Your task to perform on an android device: change notification settings in the gmail app Image 0: 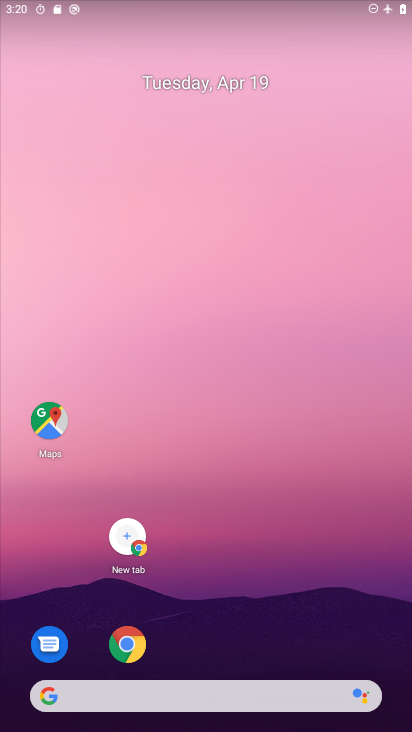
Step 0: drag from (243, 506) to (136, 95)
Your task to perform on an android device: change notification settings in the gmail app Image 1: 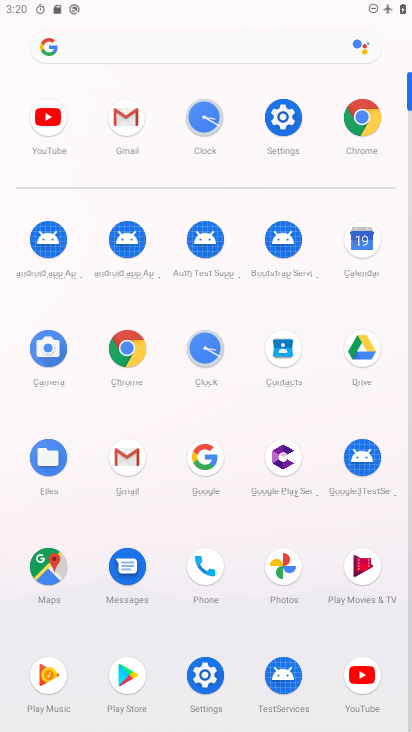
Step 1: click (138, 458)
Your task to perform on an android device: change notification settings in the gmail app Image 2: 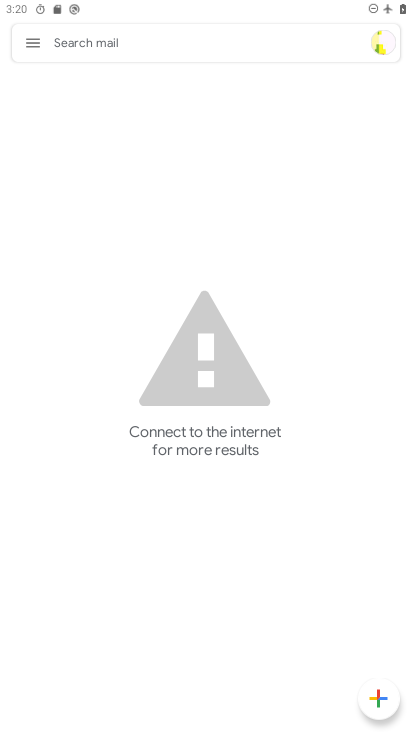
Step 2: click (30, 46)
Your task to perform on an android device: change notification settings in the gmail app Image 3: 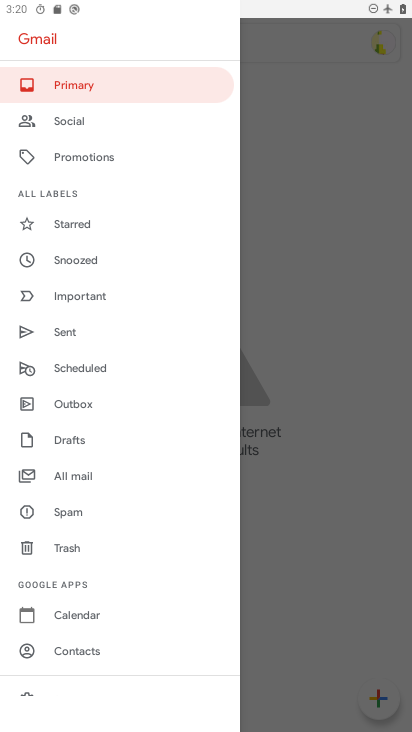
Step 3: drag from (107, 647) to (99, 218)
Your task to perform on an android device: change notification settings in the gmail app Image 4: 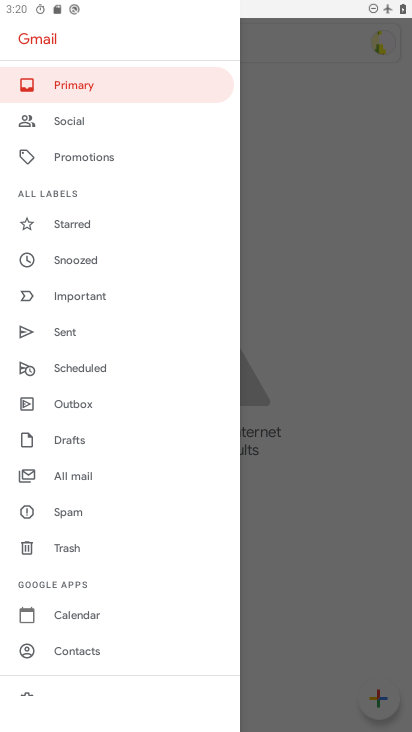
Step 4: drag from (74, 647) to (56, 337)
Your task to perform on an android device: change notification settings in the gmail app Image 5: 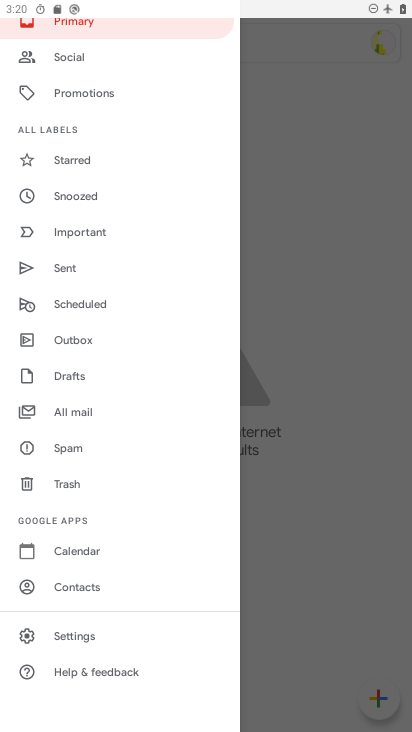
Step 5: click (75, 634)
Your task to perform on an android device: change notification settings in the gmail app Image 6: 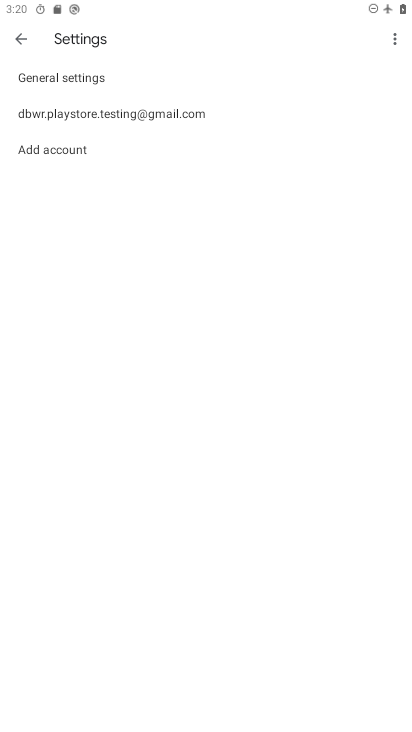
Step 6: click (144, 111)
Your task to perform on an android device: change notification settings in the gmail app Image 7: 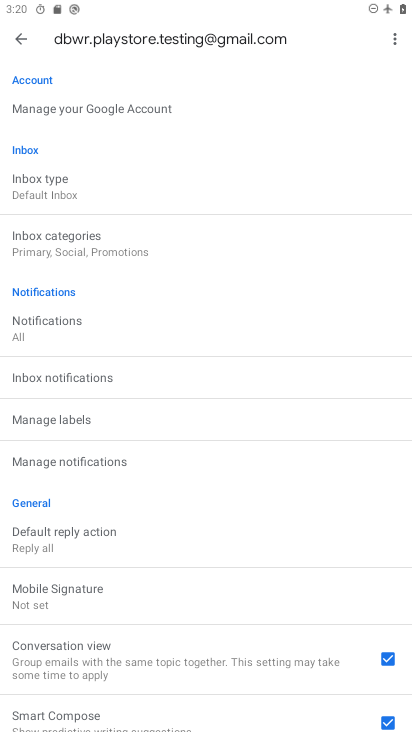
Step 7: click (68, 464)
Your task to perform on an android device: change notification settings in the gmail app Image 8: 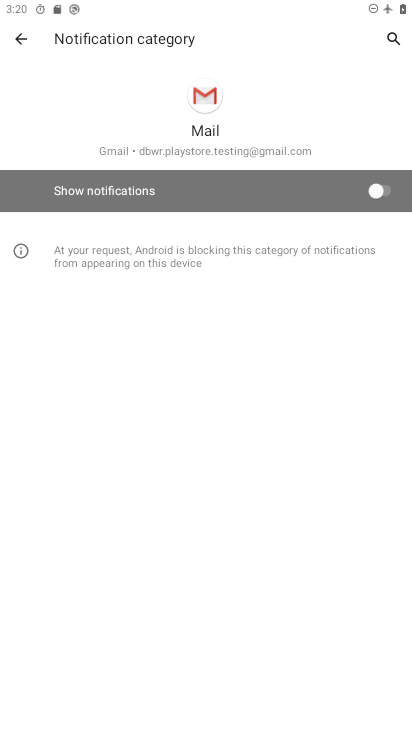
Step 8: click (387, 189)
Your task to perform on an android device: change notification settings in the gmail app Image 9: 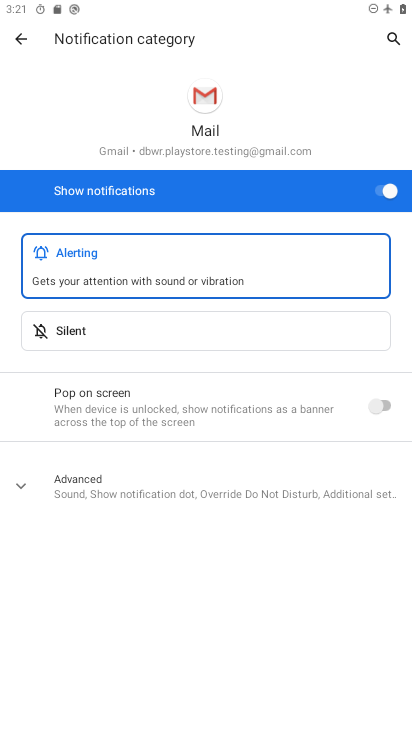
Step 9: task complete